Your task to perform on an android device: Is it going to rain tomorrow? Image 0: 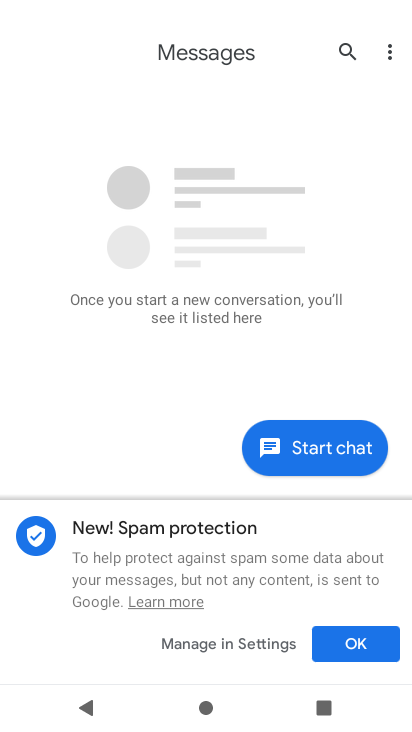
Step 0: press home button
Your task to perform on an android device: Is it going to rain tomorrow? Image 1: 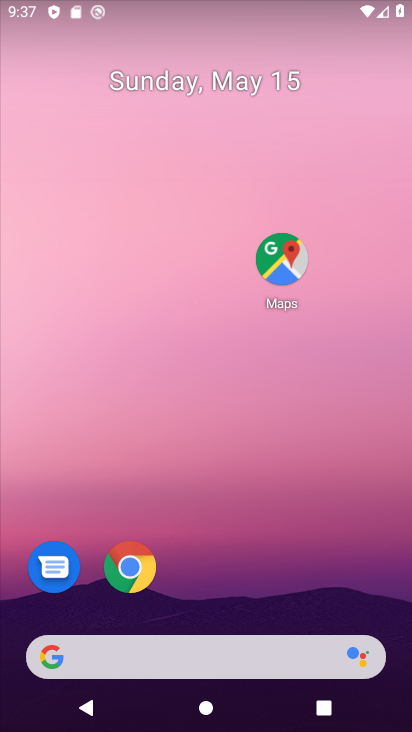
Step 1: drag from (231, 555) to (225, 80)
Your task to perform on an android device: Is it going to rain tomorrow? Image 2: 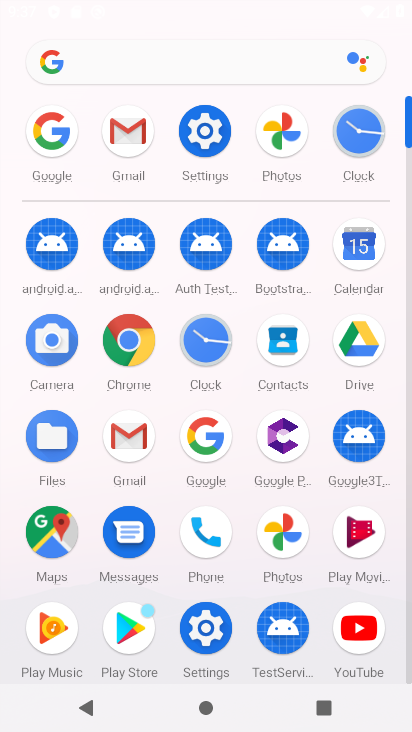
Step 2: click (58, 129)
Your task to perform on an android device: Is it going to rain tomorrow? Image 3: 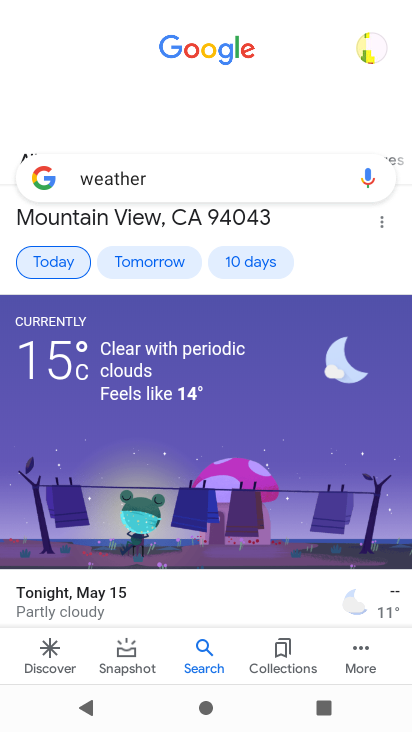
Step 3: click (195, 173)
Your task to perform on an android device: Is it going to rain tomorrow? Image 4: 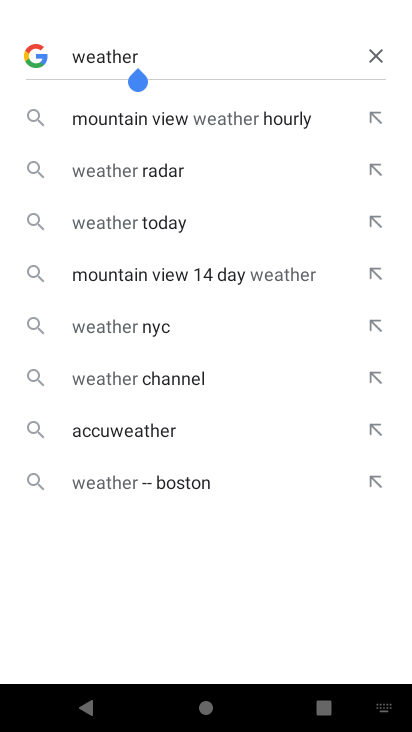
Step 4: click (376, 49)
Your task to perform on an android device: Is it going to rain tomorrow? Image 5: 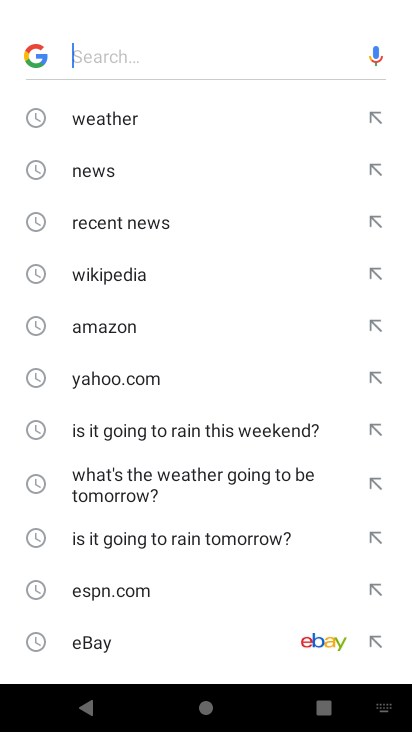
Step 5: click (182, 538)
Your task to perform on an android device: Is it going to rain tomorrow? Image 6: 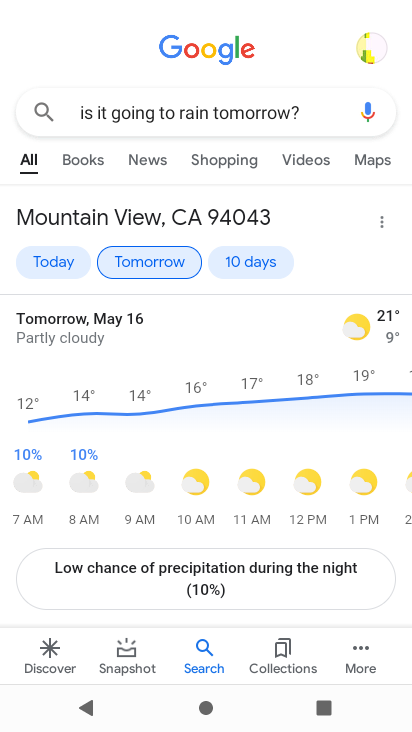
Step 6: task complete